Your task to perform on an android device: Open Google Chrome Image 0: 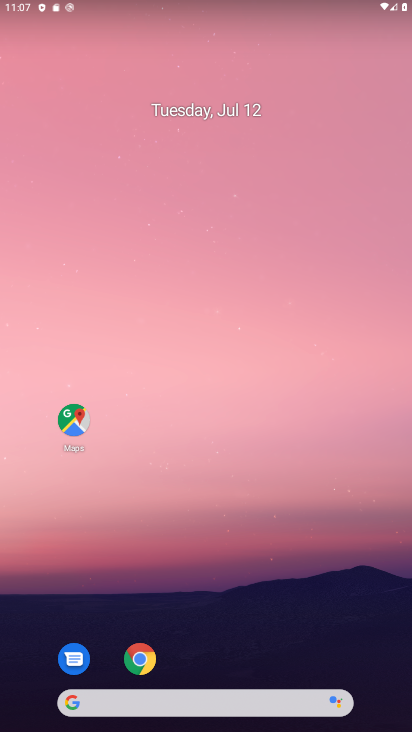
Step 0: drag from (213, 704) to (189, 135)
Your task to perform on an android device: Open Google Chrome Image 1: 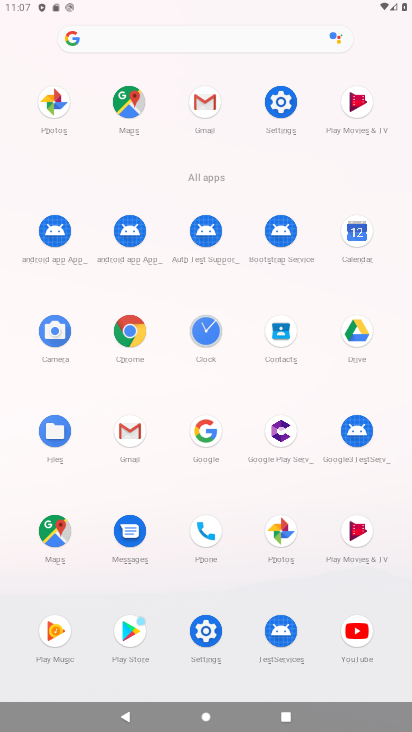
Step 1: click (135, 325)
Your task to perform on an android device: Open Google Chrome Image 2: 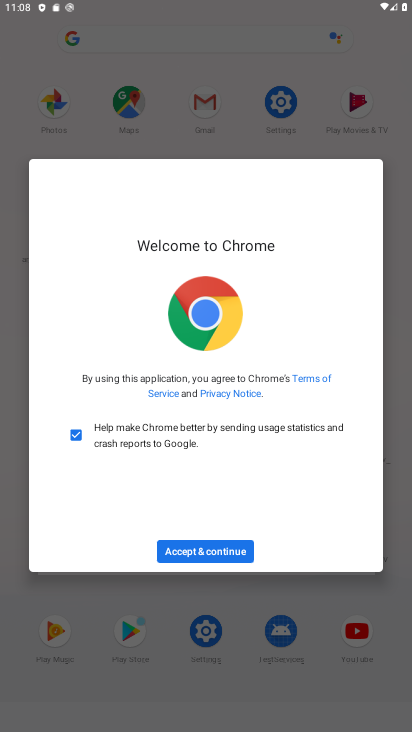
Step 2: click (220, 552)
Your task to perform on an android device: Open Google Chrome Image 3: 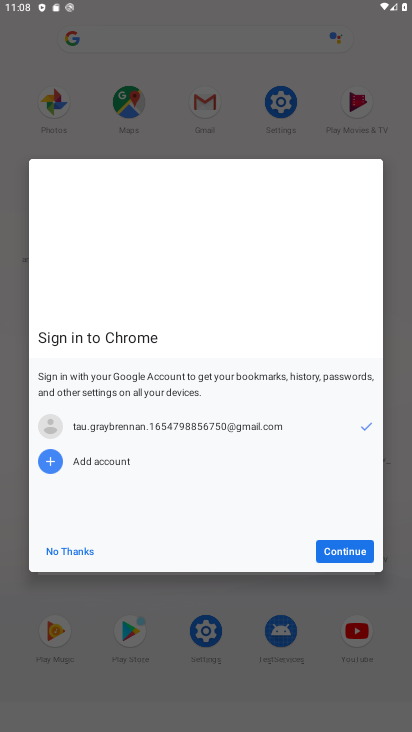
Step 3: click (77, 548)
Your task to perform on an android device: Open Google Chrome Image 4: 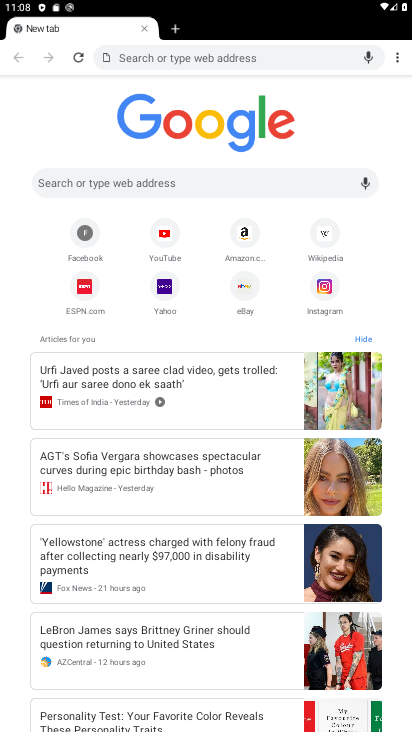
Step 4: task complete